Your task to perform on an android device: check google app version Image 0: 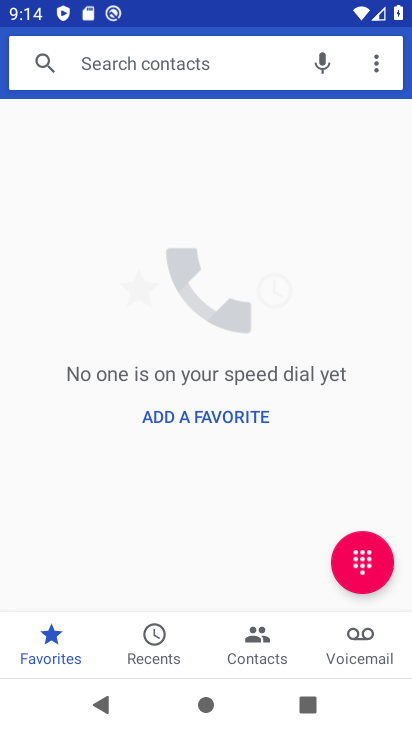
Step 0: press home button
Your task to perform on an android device: check google app version Image 1: 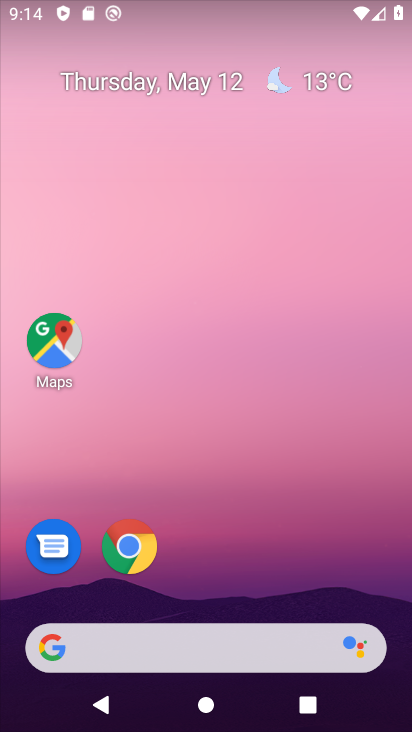
Step 1: drag from (188, 617) to (344, 90)
Your task to perform on an android device: check google app version Image 2: 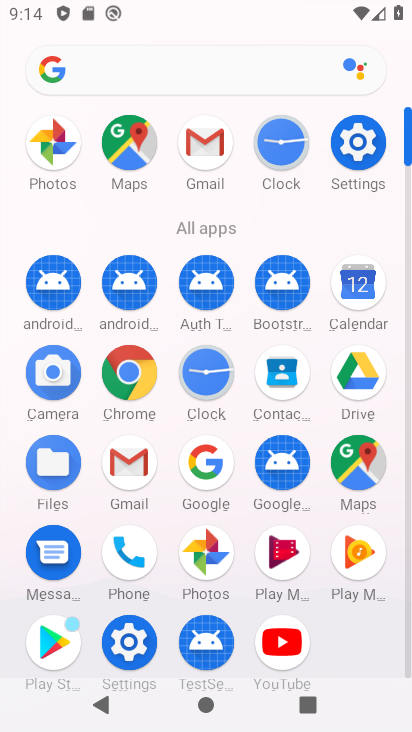
Step 2: click (124, 648)
Your task to perform on an android device: check google app version Image 3: 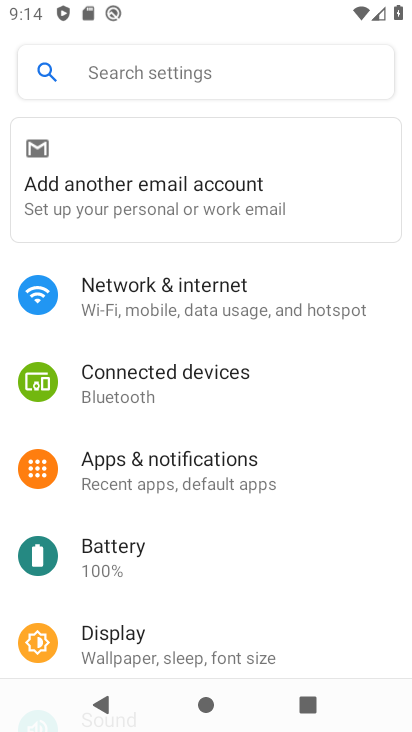
Step 3: drag from (185, 590) to (263, 305)
Your task to perform on an android device: check google app version Image 4: 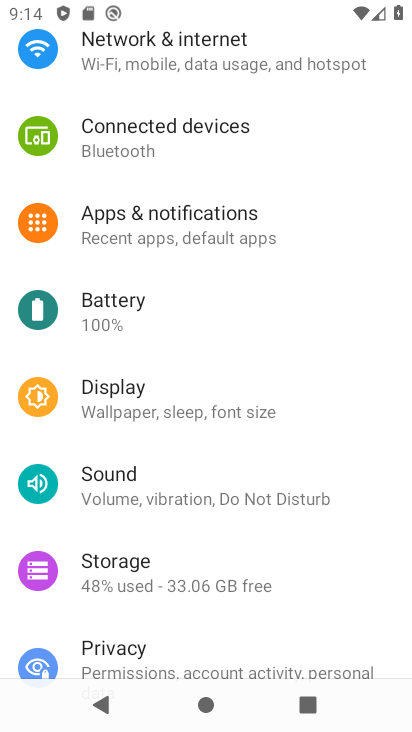
Step 4: click (186, 215)
Your task to perform on an android device: check google app version Image 5: 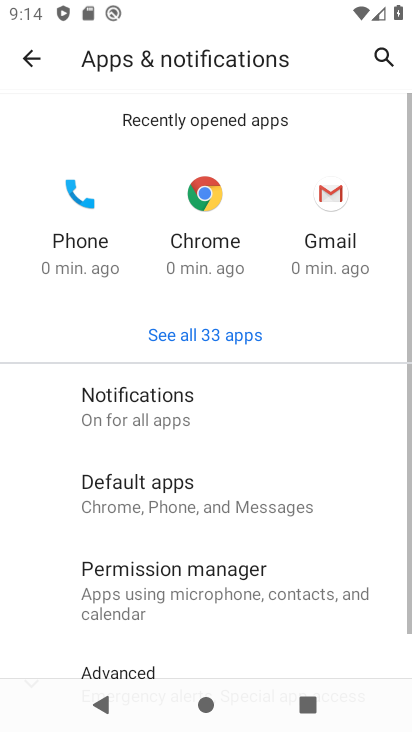
Step 5: click (223, 334)
Your task to perform on an android device: check google app version Image 6: 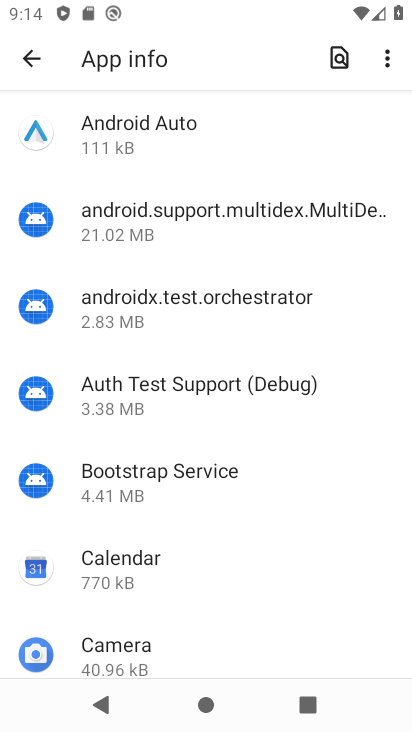
Step 6: drag from (230, 597) to (364, 103)
Your task to perform on an android device: check google app version Image 7: 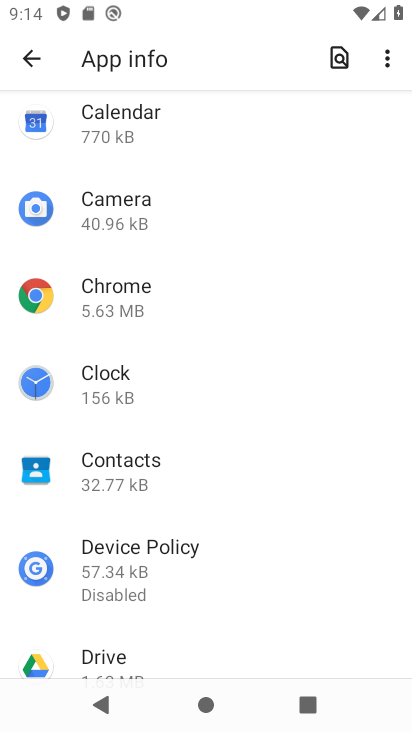
Step 7: drag from (172, 580) to (268, 285)
Your task to perform on an android device: check google app version Image 8: 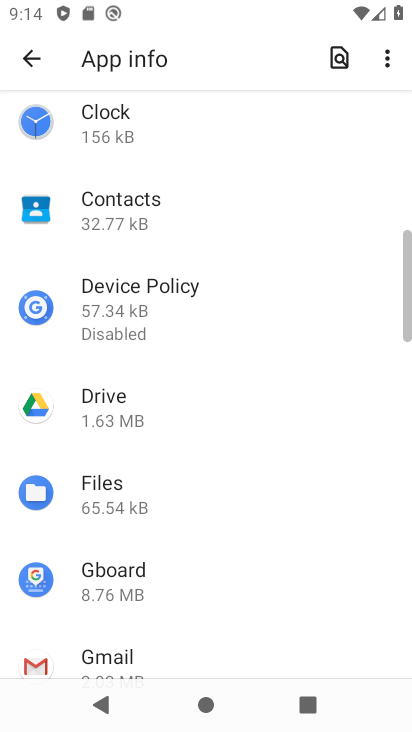
Step 8: drag from (188, 597) to (313, 192)
Your task to perform on an android device: check google app version Image 9: 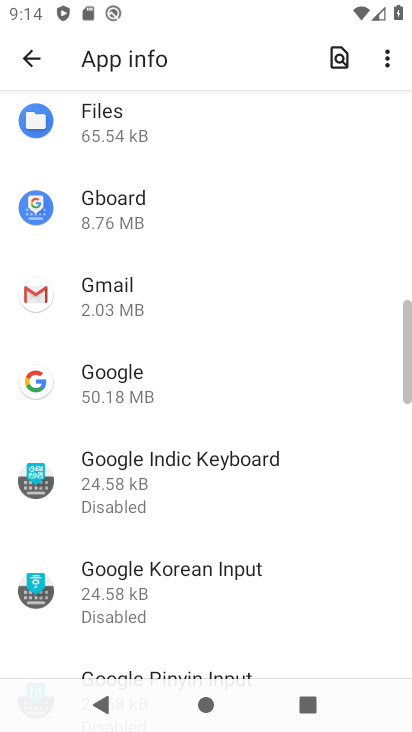
Step 9: click (180, 385)
Your task to perform on an android device: check google app version Image 10: 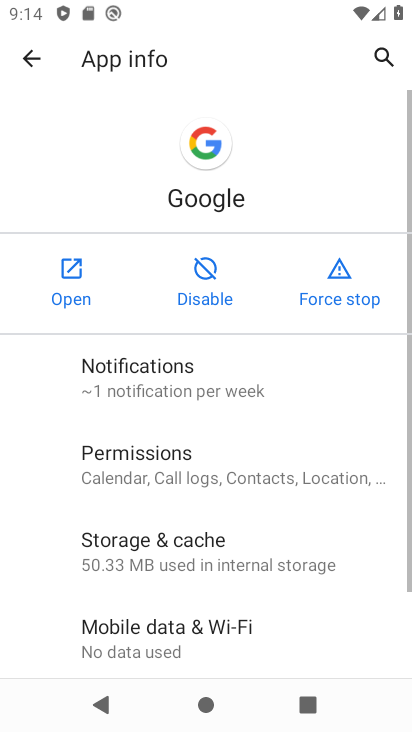
Step 10: drag from (186, 611) to (333, 235)
Your task to perform on an android device: check google app version Image 11: 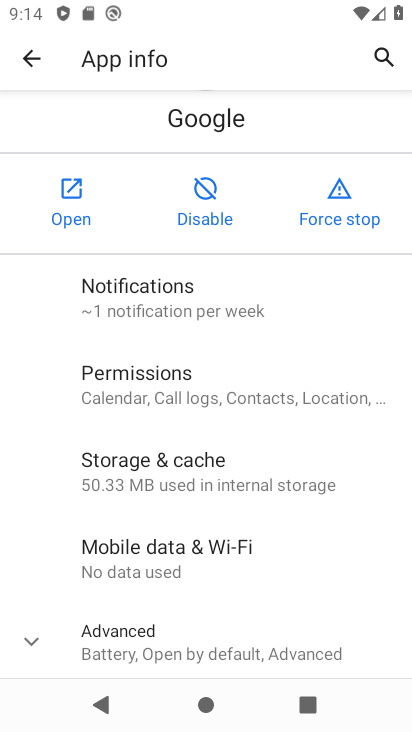
Step 11: click (118, 646)
Your task to perform on an android device: check google app version Image 12: 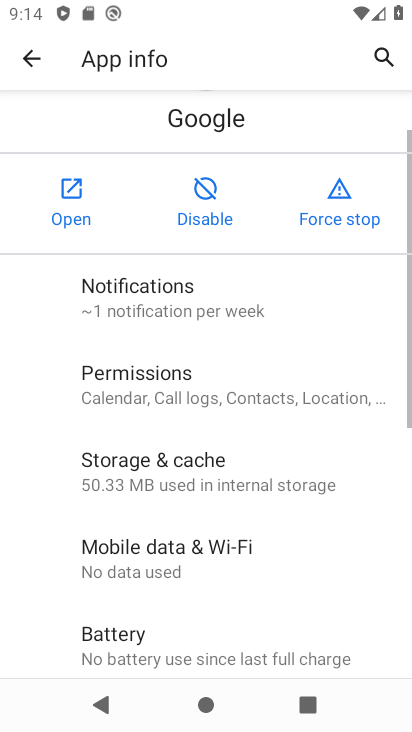
Step 12: task complete